Your task to perform on an android device: Go to display settings Image 0: 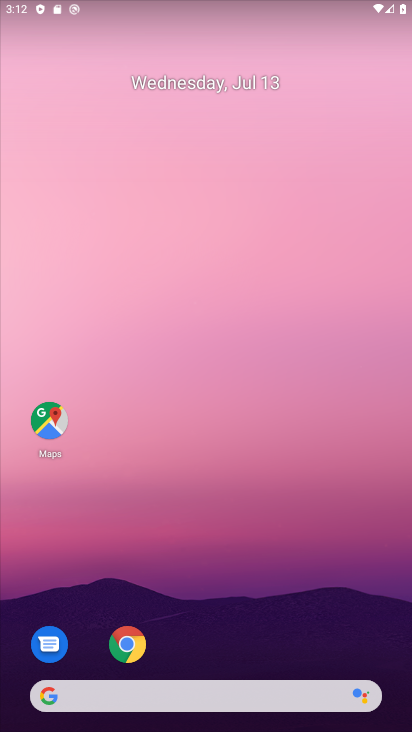
Step 0: drag from (216, 651) to (171, 50)
Your task to perform on an android device: Go to display settings Image 1: 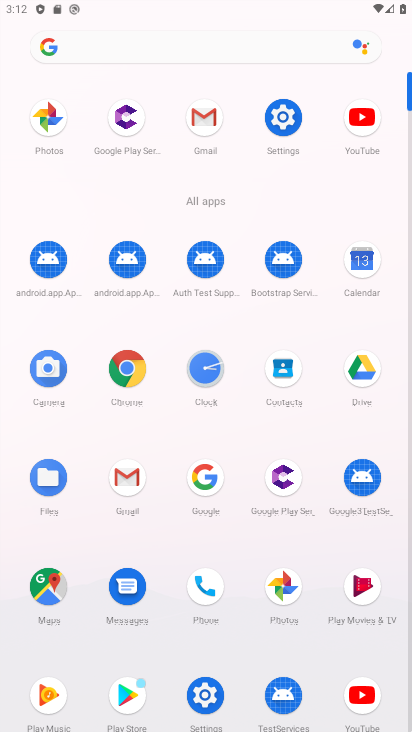
Step 1: click (295, 110)
Your task to perform on an android device: Go to display settings Image 2: 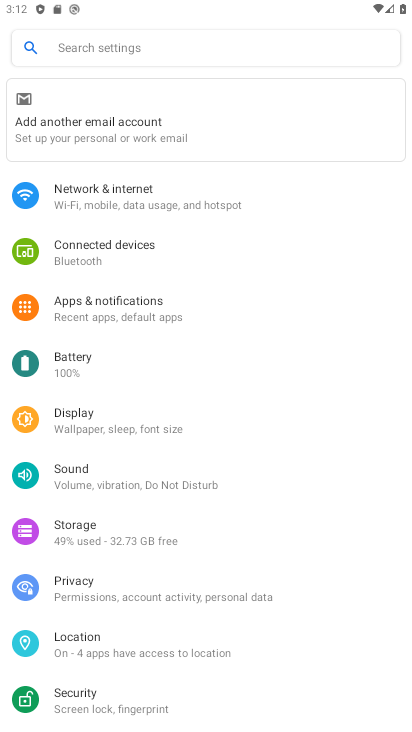
Step 2: click (114, 409)
Your task to perform on an android device: Go to display settings Image 3: 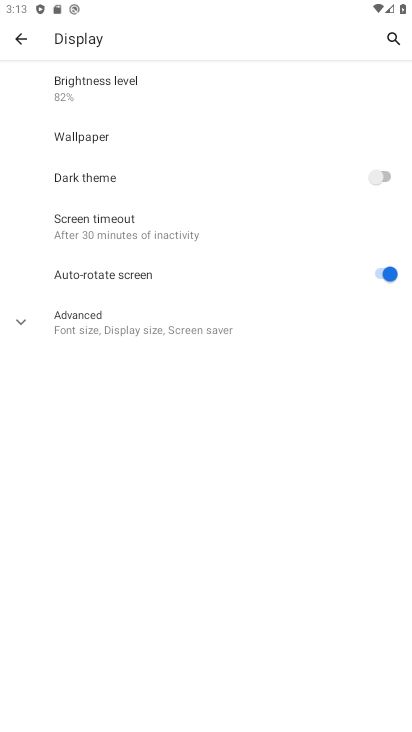
Step 3: task complete